Your task to perform on an android device: change keyboard looks Image 0: 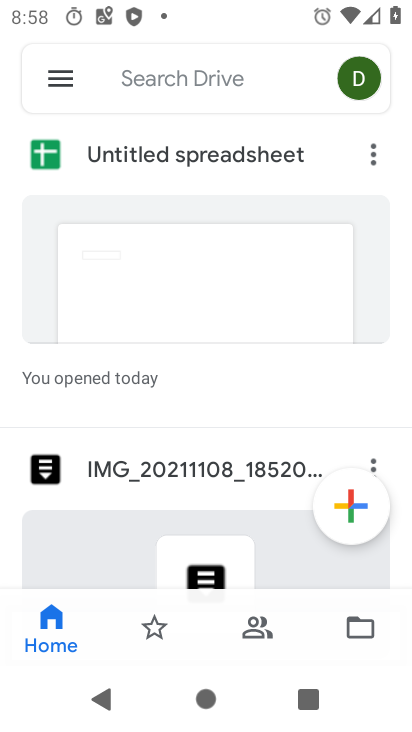
Step 0: press home button
Your task to perform on an android device: change keyboard looks Image 1: 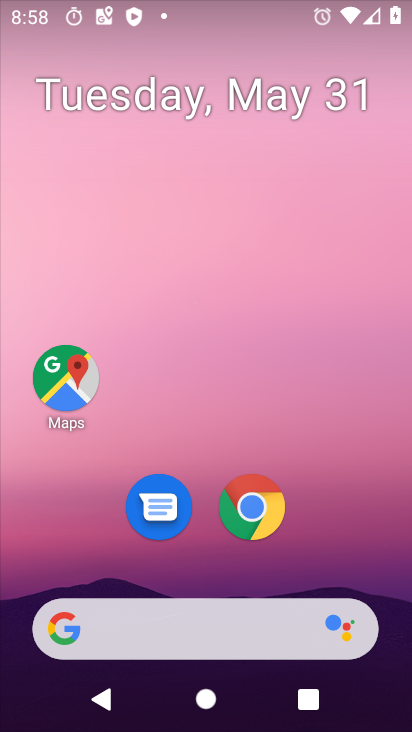
Step 1: drag from (356, 582) to (291, 0)
Your task to perform on an android device: change keyboard looks Image 2: 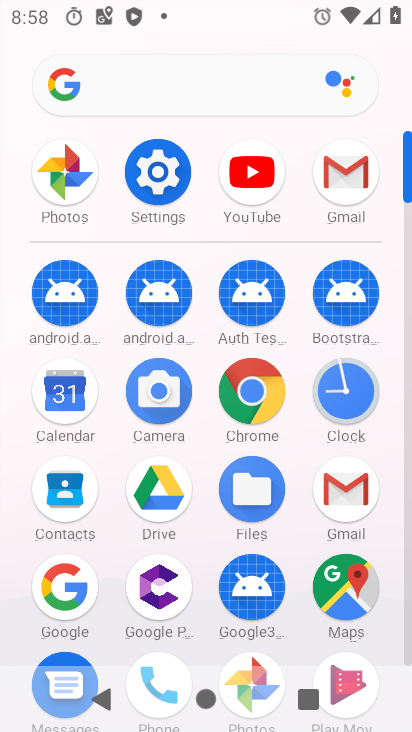
Step 2: click (157, 174)
Your task to perform on an android device: change keyboard looks Image 3: 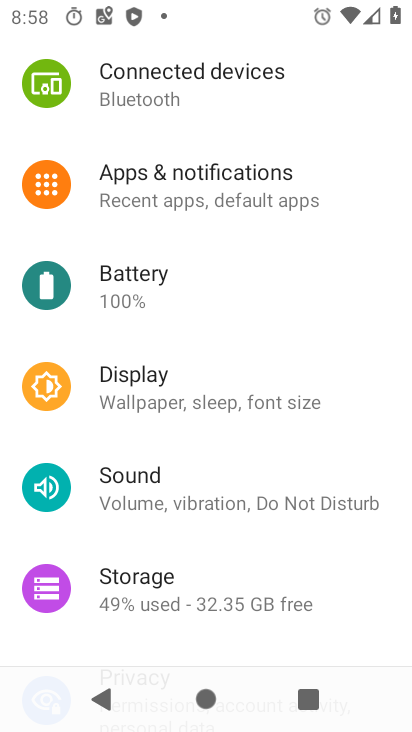
Step 3: drag from (216, 579) to (216, 37)
Your task to perform on an android device: change keyboard looks Image 4: 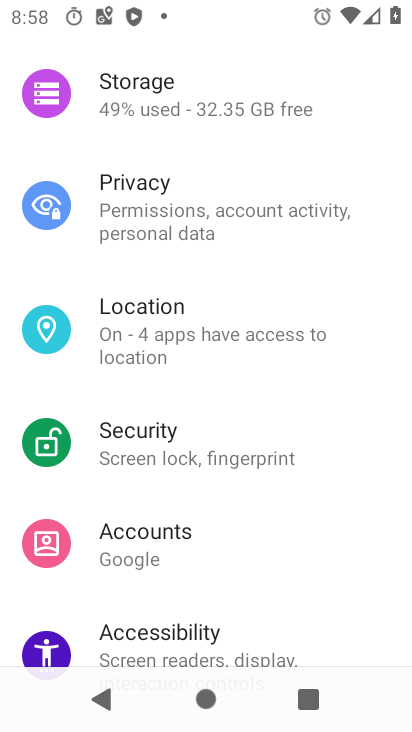
Step 4: drag from (240, 434) to (202, 47)
Your task to perform on an android device: change keyboard looks Image 5: 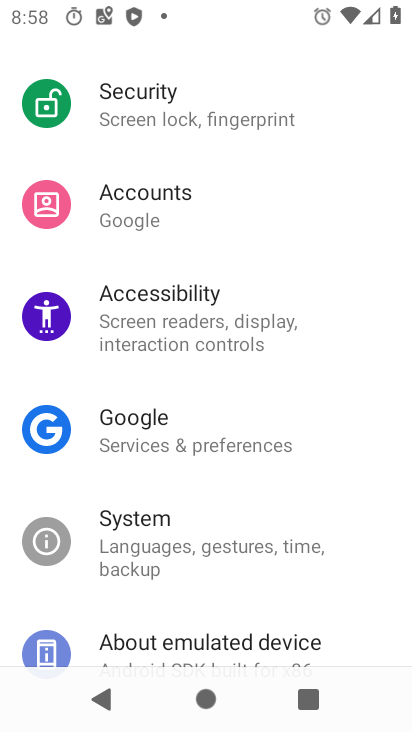
Step 5: click (153, 539)
Your task to perform on an android device: change keyboard looks Image 6: 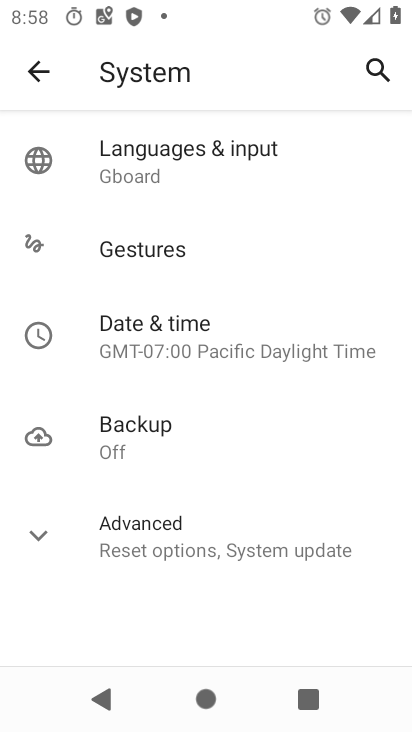
Step 6: click (150, 166)
Your task to perform on an android device: change keyboard looks Image 7: 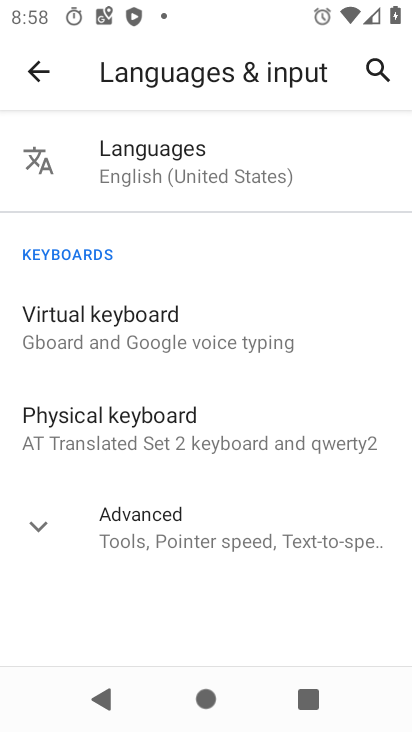
Step 7: click (117, 346)
Your task to perform on an android device: change keyboard looks Image 8: 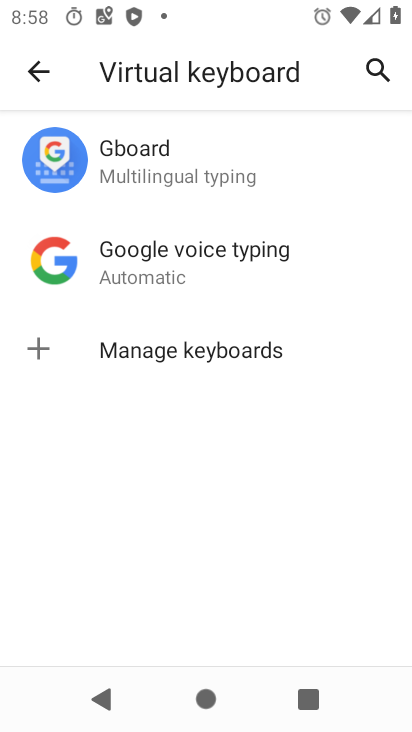
Step 8: click (139, 160)
Your task to perform on an android device: change keyboard looks Image 9: 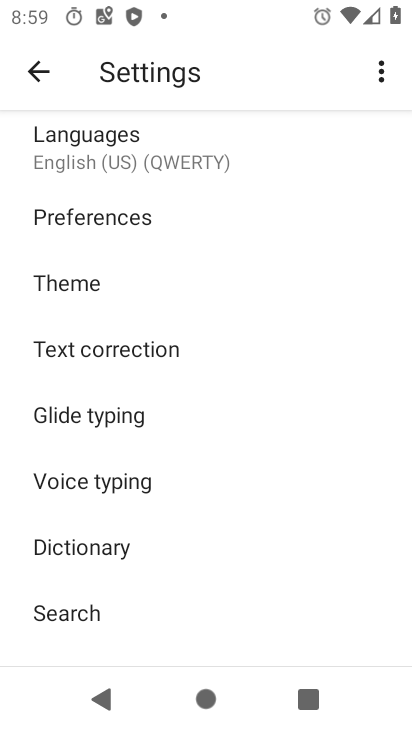
Step 9: click (68, 290)
Your task to perform on an android device: change keyboard looks Image 10: 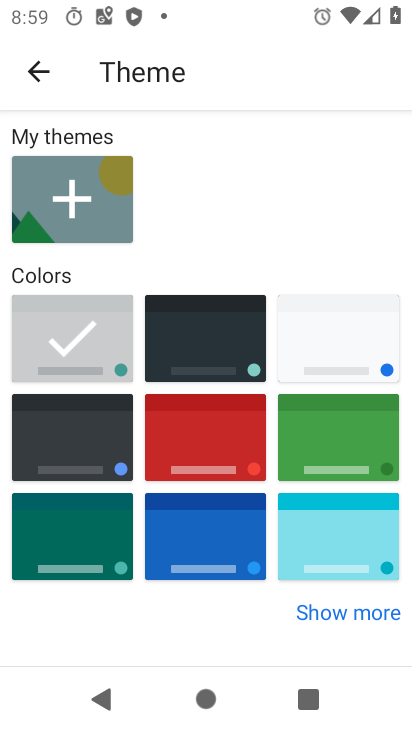
Step 10: click (83, 449)
Your task to perform on an android device: change keyboard looks Image 11: 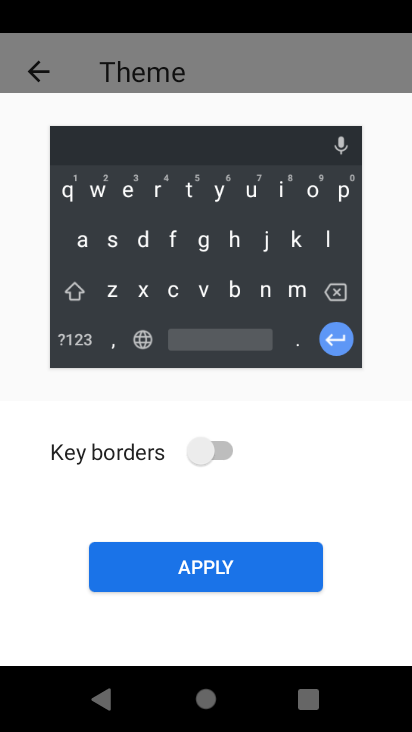
Step 11: click (192, 456)
Your task to perform on an android device: change keyboard looks Image 12: 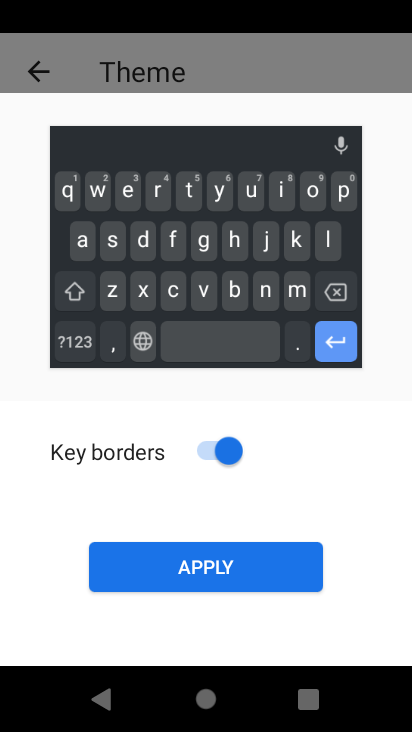
Step 12: click (228, 572)
Your task to perform on an android device: change keyboard looks Image 13: 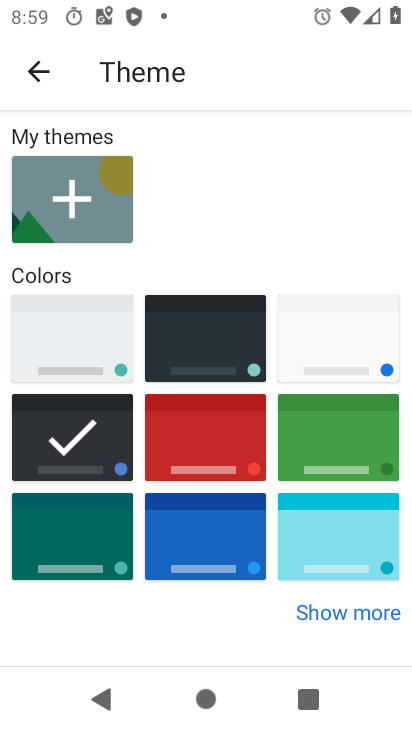
Step 13: task complete